Your task to perform on an android device: open app "LiveIn - Share Your Moment" (install if not already installed) and go to login screen Image 0: 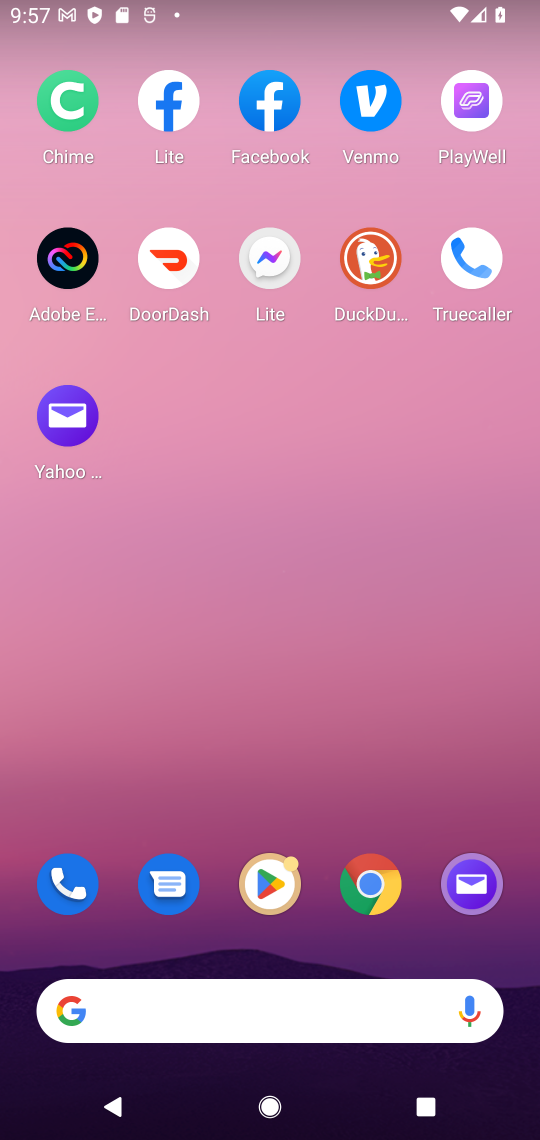
Step 0: click (287, 892)
Your task to perform on an android device: open app "LiveIn - Share Your Moment" (install if not already installed) and go to login screen Image 1: 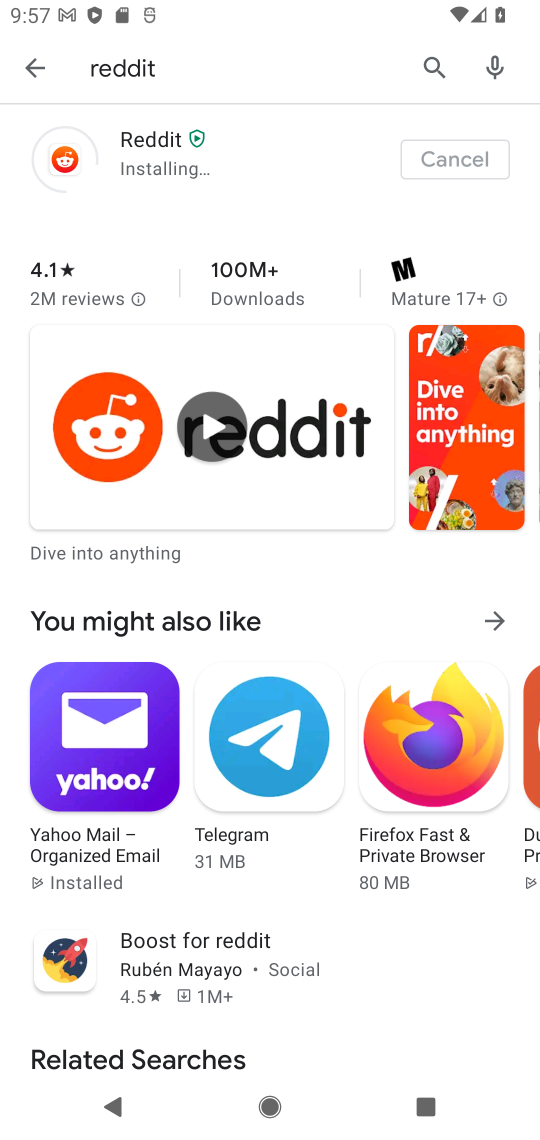
Step 1: click (423, 75)
Your task to perform on an android device: open app "LiveIn - Share Your Moment" (install if not already installed) and go to login screen Image 2: 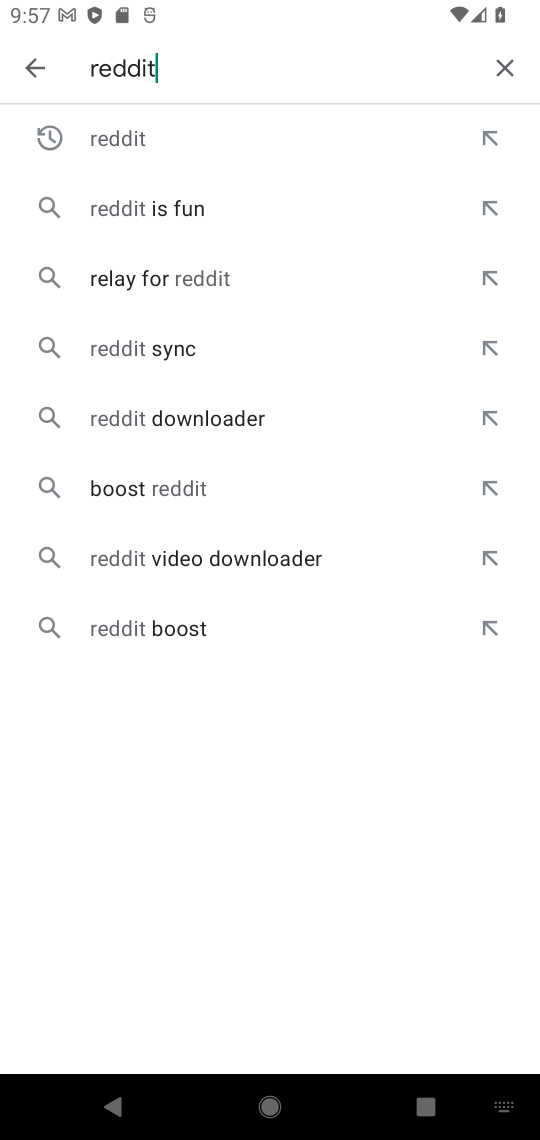
Step 2: click (502, 77)
Your task to perform on an android device: open app "LiveIn - Share Your Moment" (install if not already installed) and go to login screen Image 3: 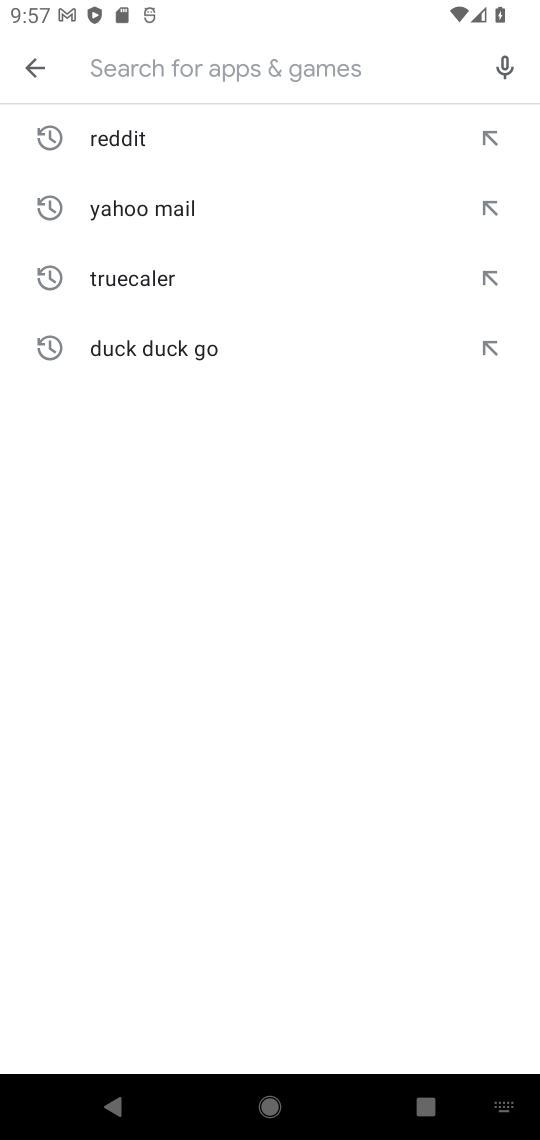
Step 3: type "livein"
Your task to perform on an android device: open app "LiveIn - Share Your Moment" (install if not already installed) and go to login screen Image 4: 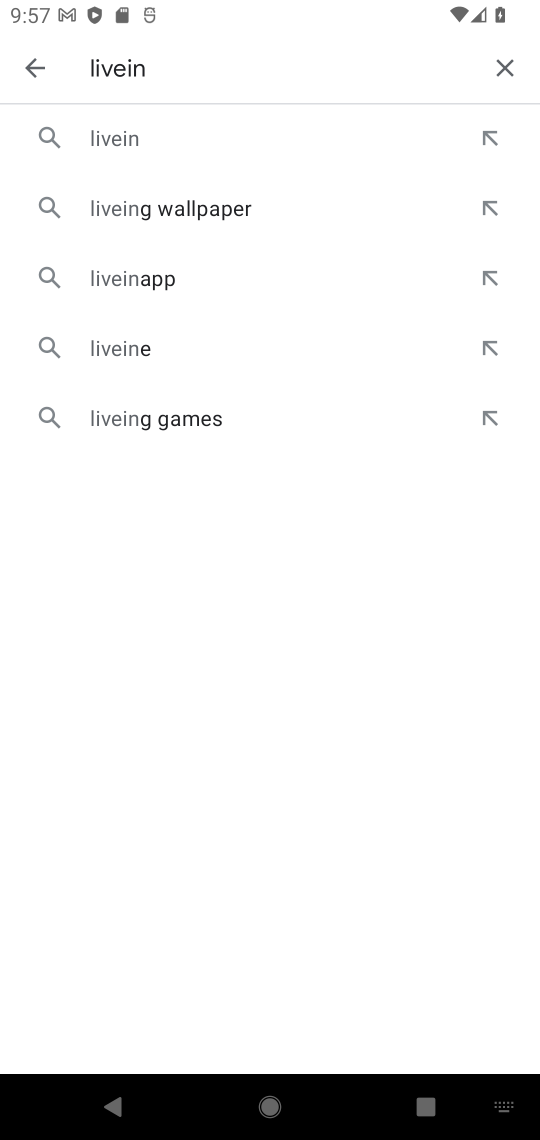
Step 4: click (158, 158)
Your task to perform on an android device: open app "LiveIn - Share Your Moment" (install if not already installed) and go to login screen Image 5: 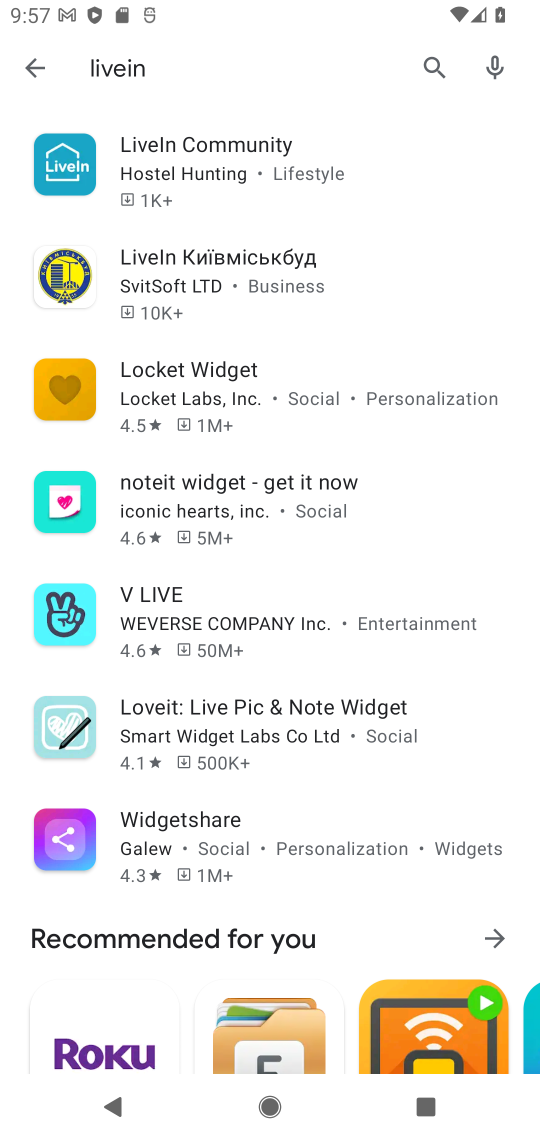
Step 5: click (261, 193)
Your task to perform on an android device: open app "LiveIn - Share Your Moment" (install if not already installed) and go to login screen Image 6: 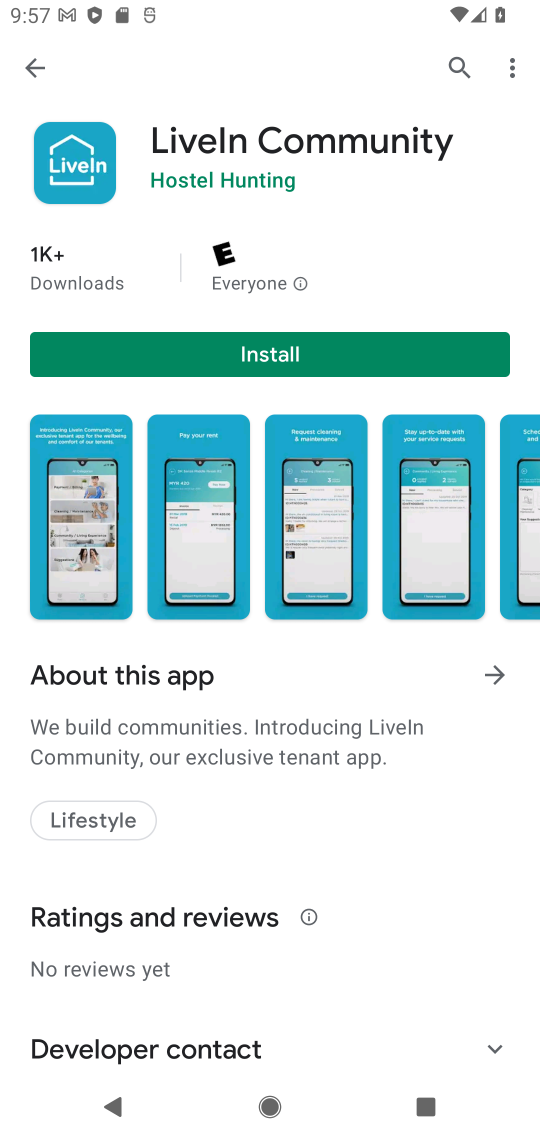
Step 6: click (314, 355)
Your task to perform on an android device: open app "LiveIn - Share Your Moment" (install if not already installed) and go to login screen Image 7: 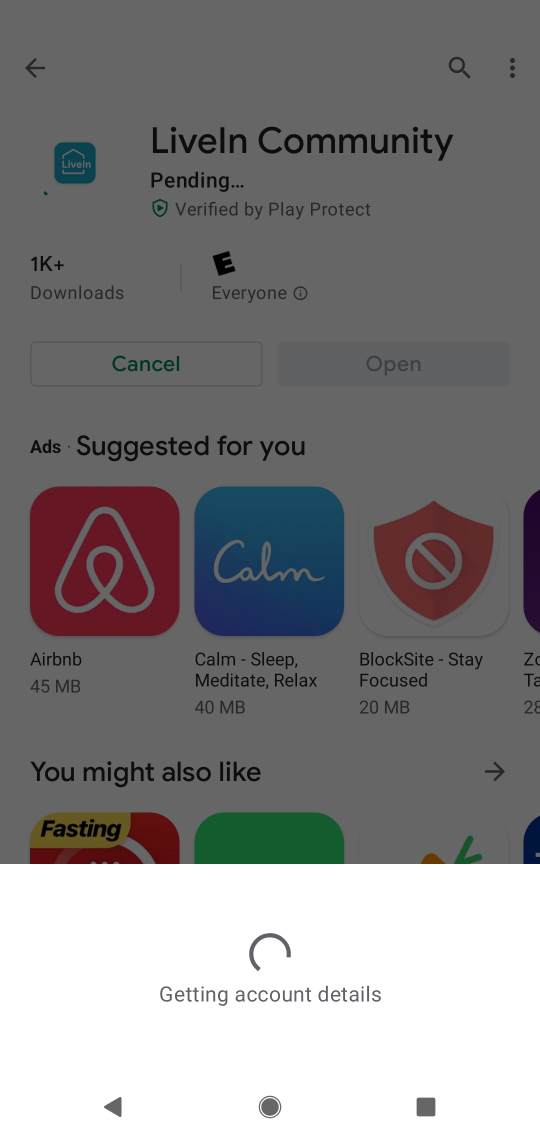
Step 7: task complete